Your task to perform on an android device: delete browsing data in the chrome app Image 0: 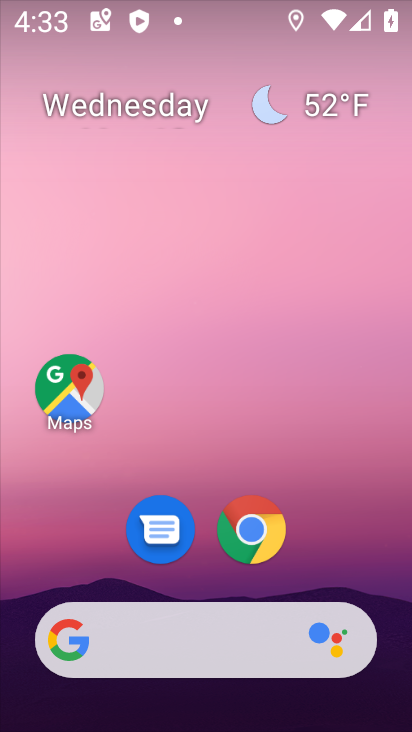
Step 0: click (250, 528)
Your task to perform on an android device: delete browsing data in the chrome app Image 1: 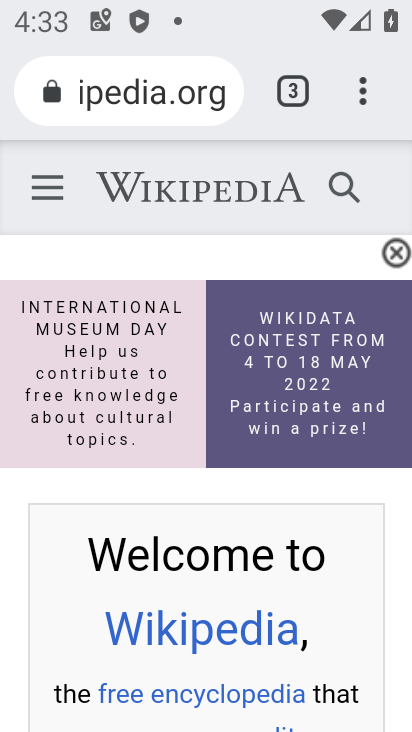
Step 1: click (362, 90)
Your task to perform on an android device: delete browsing data in the chrome app Image 2: 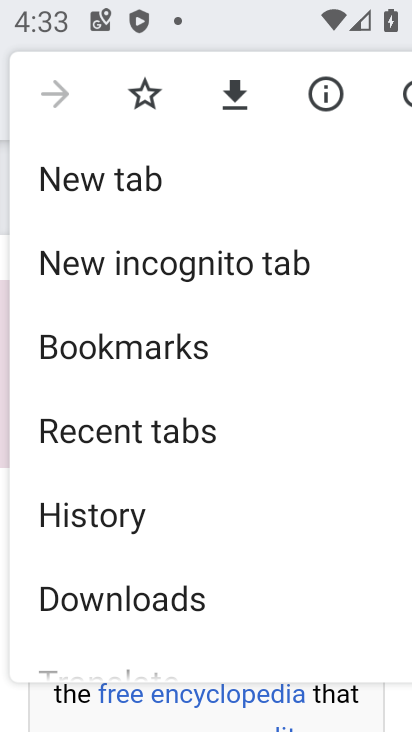
Step 2: drag from (172, 523) to (195, 401)
Your task to perform on an android device: delete browsing data in the chrome app Image 3: 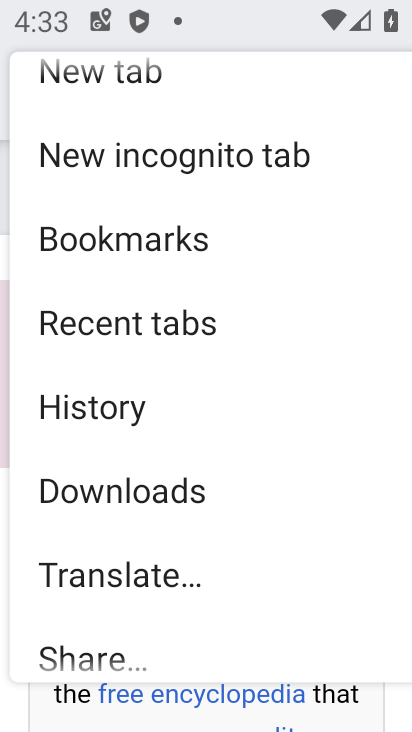
Step 3: drag from (166, 534) to (210, 405)
Your task to perform on an android device: delete browsing data in the chrome app Image 4: 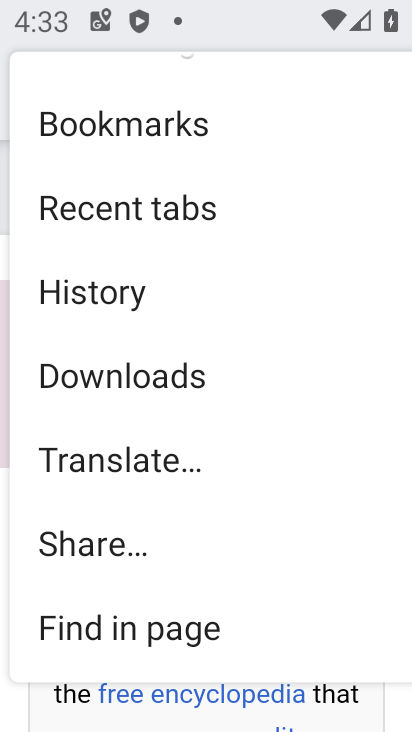
Step 4: drag from (179, 552) to (222, 423)
Your task to perform on an android device: delete browsing data in the chrome app Image 5: 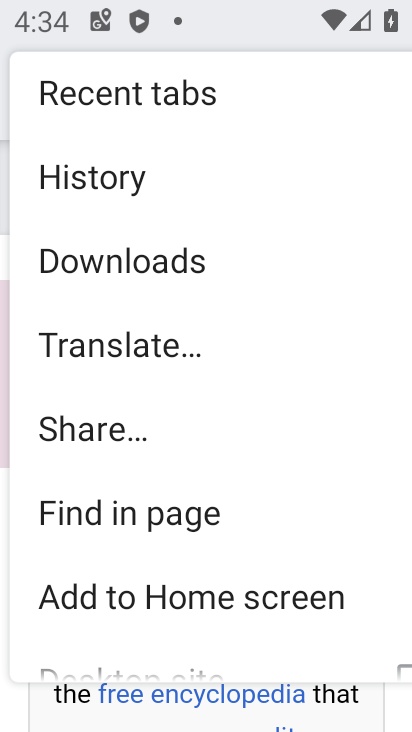
Step 5: drag from (181, 548) to (228, 435)
Your task to perform on an android device: delete browsing data in the chrome app Image 6: 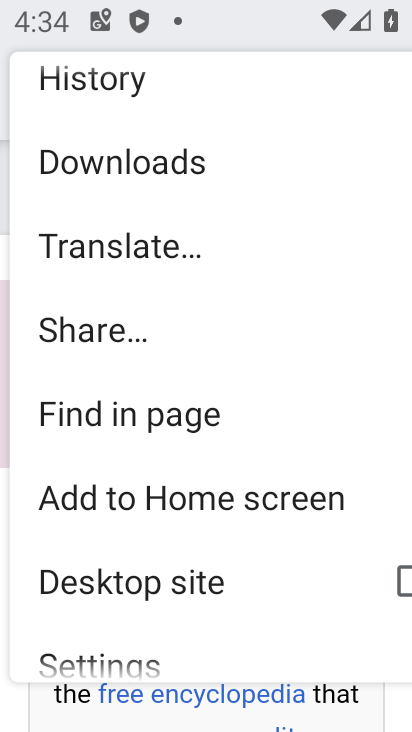
Step 6: drag from (171, 554) to (245, 419)
Your task to perform on an android device: delete browsing data in the chrome app Image 7: 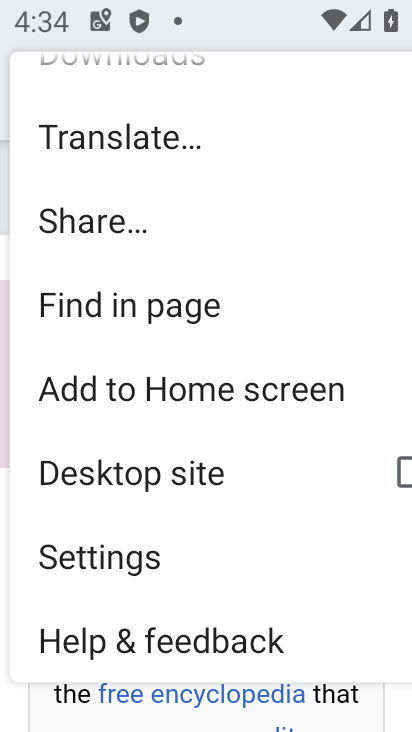
Step 7: click (98, 562)
Your task to perform on an android device: delete browsing data in the chrome app Image 8: 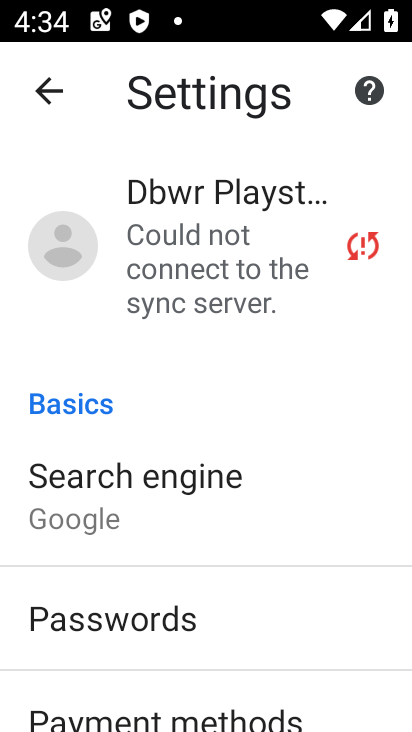
Step 8: drag from (146, 561) to (245, 399)
Your task to perform on an android device: delete browsing data in the chrome app Image 9: 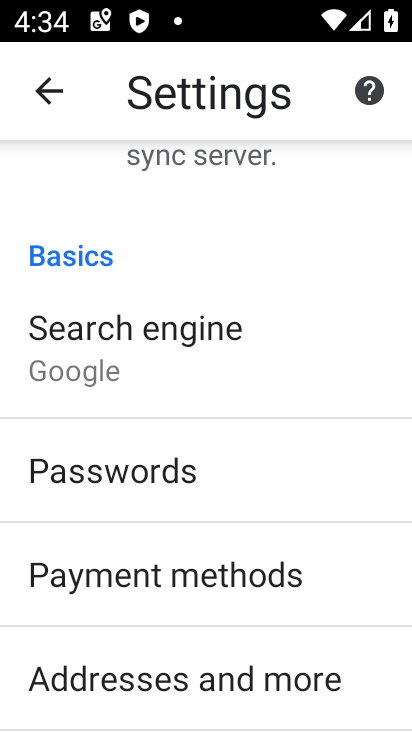
Step 9: drag from (139, 609) to (233, 449)
Your task to perform on an android device: delete browsing data in the chrome app Image 10: 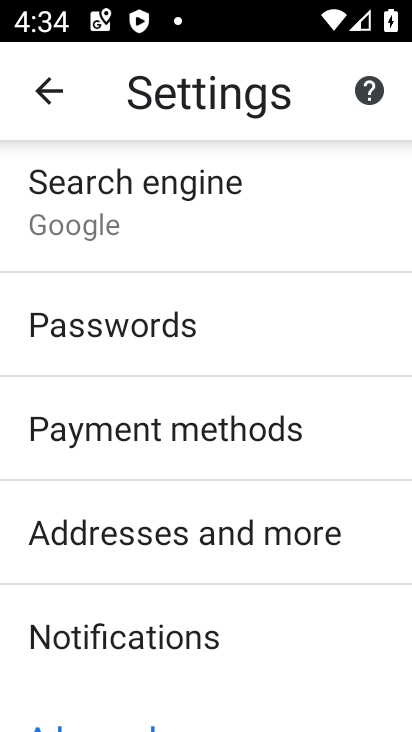
Step 10: drag from (134, 661) to (224, 484)
Your task to perform on an android device: delete browsing data in the chrome app Image 11: 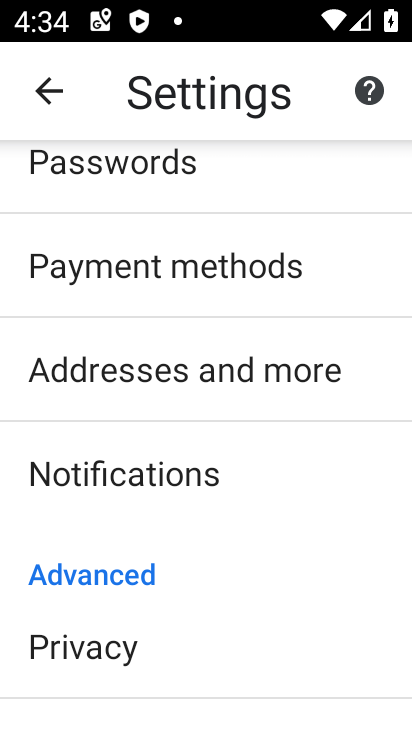
Step 11: click (119, 659)
Your task to perform on an android device: delete browsing data in the chrome app Image 12: 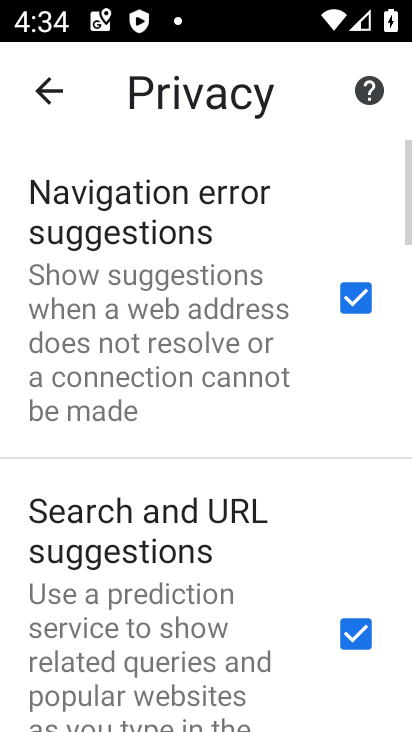
Step 12: drag from (147, 667) to (220, 399)
Your task to perform on an android device: delete browsing data in the chrome app Image 13: 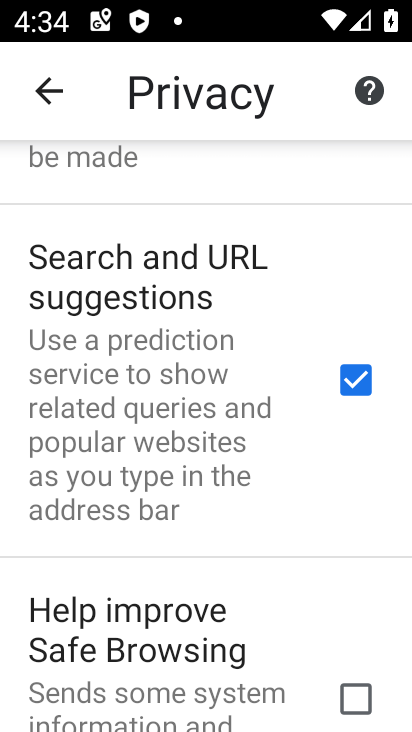
Step 13: drag from (173, 588) to (190, 331)
Your task to perform on an android device: delete browsing data in the chrome app Image 14: 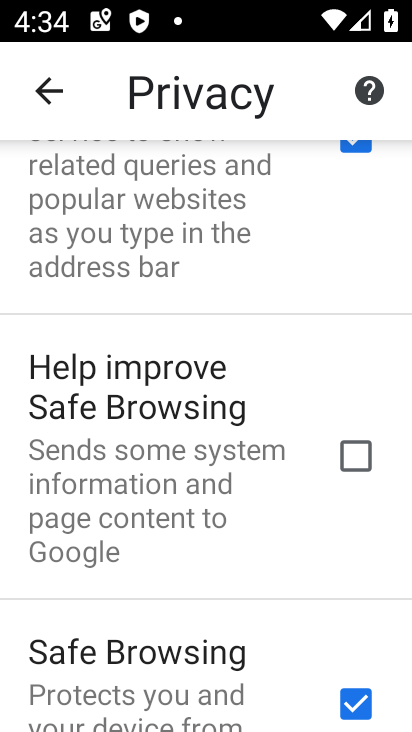
Step 14: drag from (147, 620) to (174, 352)
Your task to perform on an android device: delete browsing data in the chrome app Image 15: 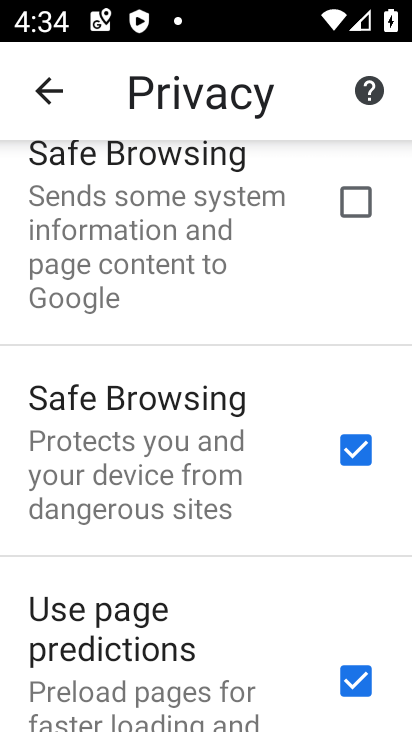
Step 15: drag from (115, 603) to (177, 406)
Your task to perform on an android device: delete browsing data in the chrome app Image 16: 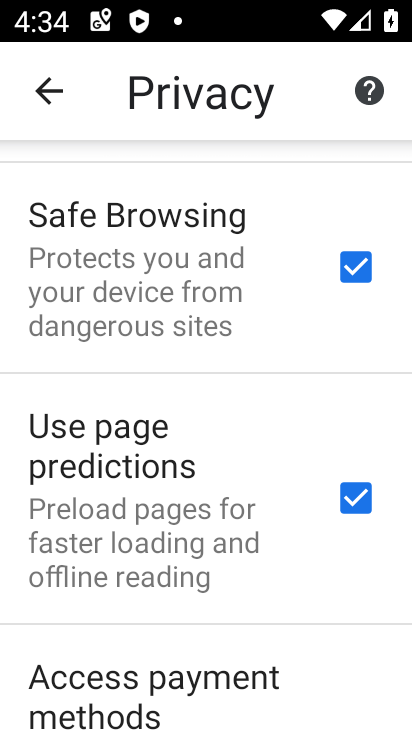
Step 16: drag from (106, 642) to (148, 463)
Your task to perform on an android device: delete browsing data in the chrome app Image 17: 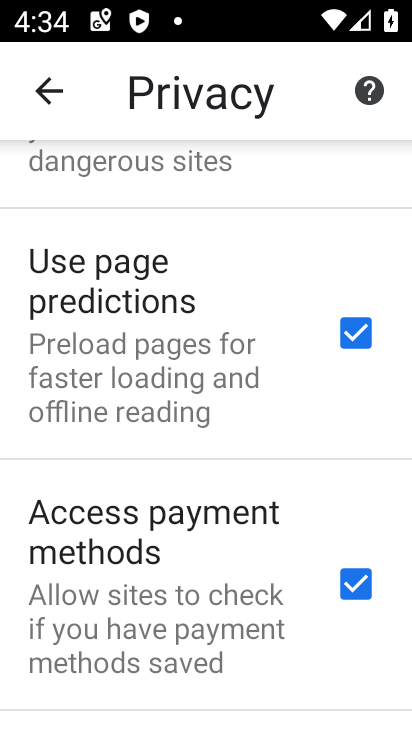
Step 17: drag from (129, 632) to (169, 434)
Your task to perform on an android device: delete browsing data in the chrome app Image 18: 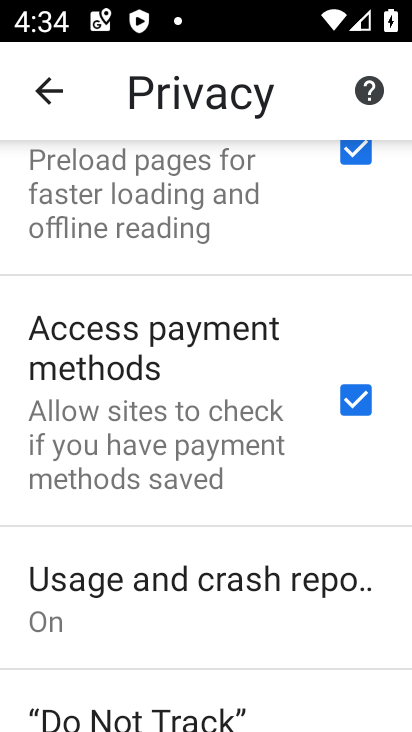
Step 18: drag from (139, 611) to (193, 417)
Your task to perform on an android device: delete browsing data in the chrome app Image 19: 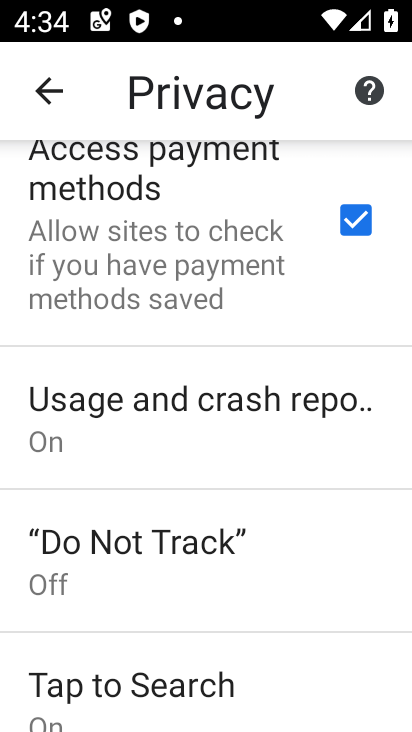
Step 19: drag from (118, 585) to (151, 381)
Your task to perform on an android device: delete browsing data in the chrome app Image 20: 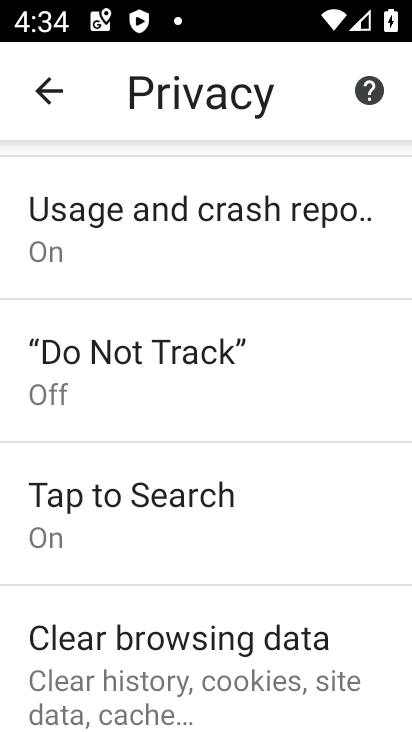
Step 20: click (132, 645)
Your task to perform on an android device: delete browsing data in the chrome app Image 21: 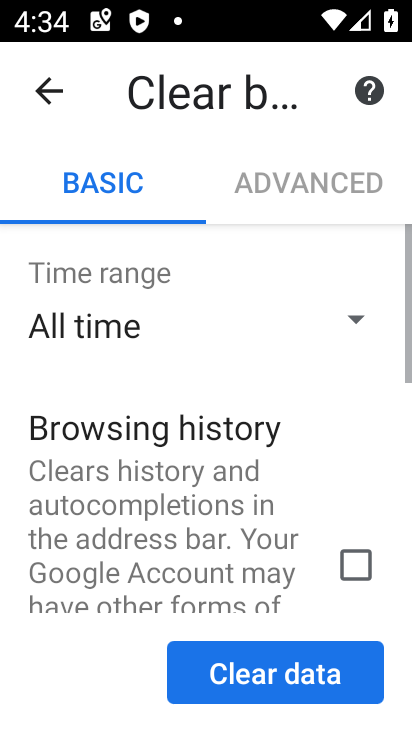
Step 21: click (342, 564)
Your task to perform on an android device: delete browsing data in the chrome app Image 22: 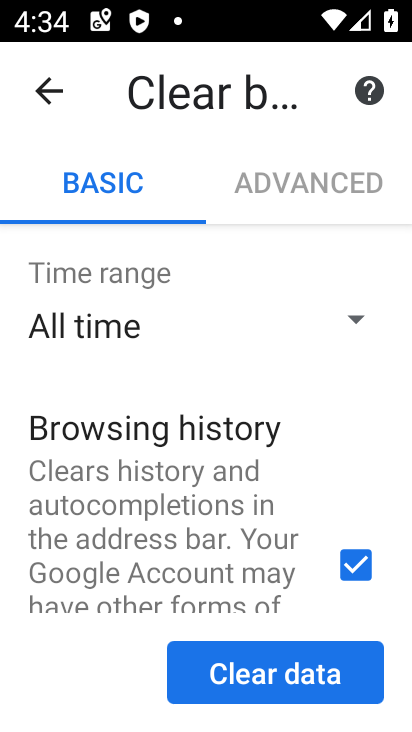
Step 22: click (273, 661)
Your task to perform on an android device: delete browsing data in the chrome app Image 23: 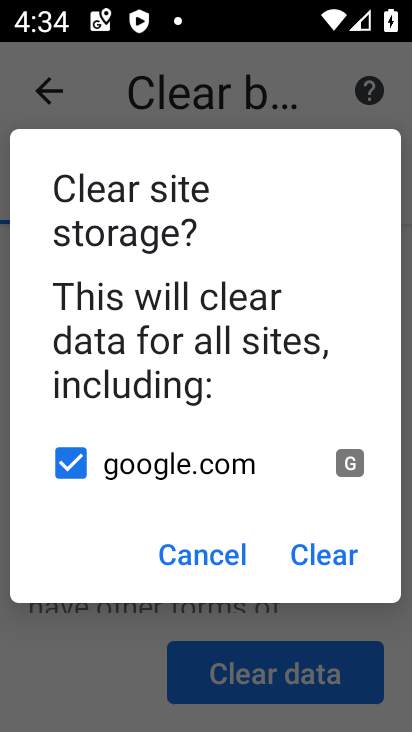
Step 23: click (337, 564)
Your task to perform on an android device: delete browsing data in the chrome app Image 24: 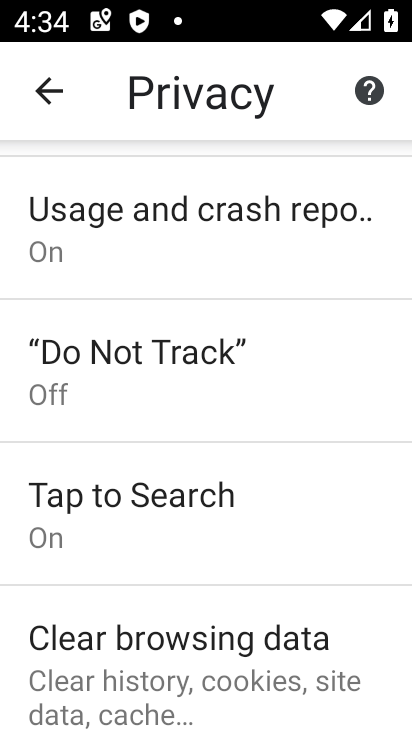
Step 24: task complete